Your task to perform on an android device: Open notification settings Image 0: 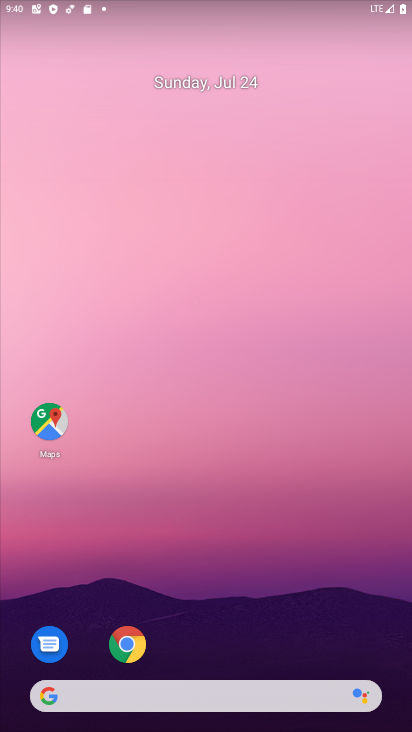
Step 0: drag from (202, 648) to (237, 252)
Your task to perform on an android device: Open notification settings Image 1: 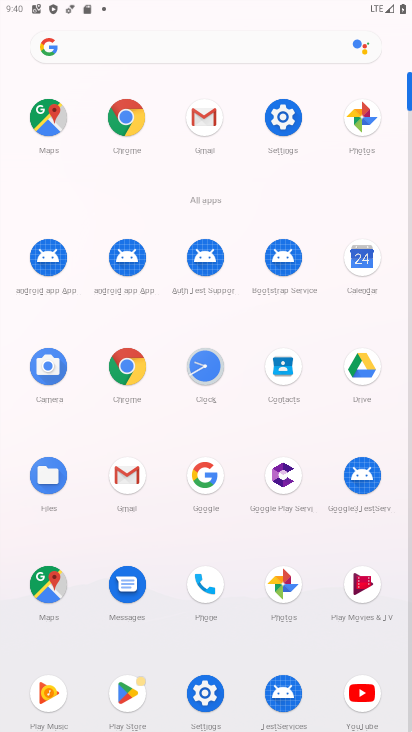
Step 1: click (279, 104)
Your task to perform on an android device: Open notification settings Image 2: 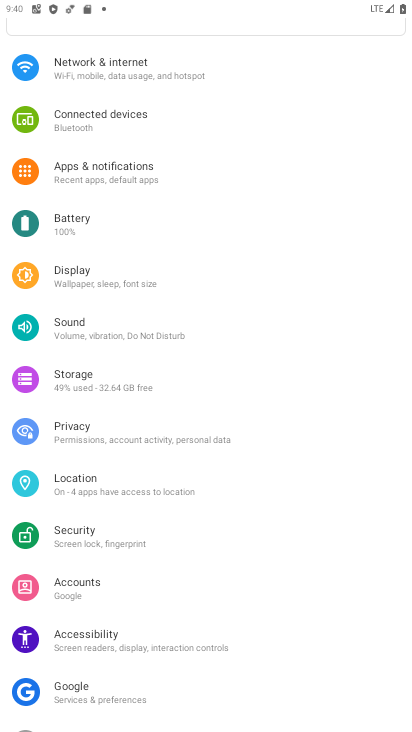
Step 2: click (89, 173)
Your task to perform on an android device: Open notification settings Image 3: 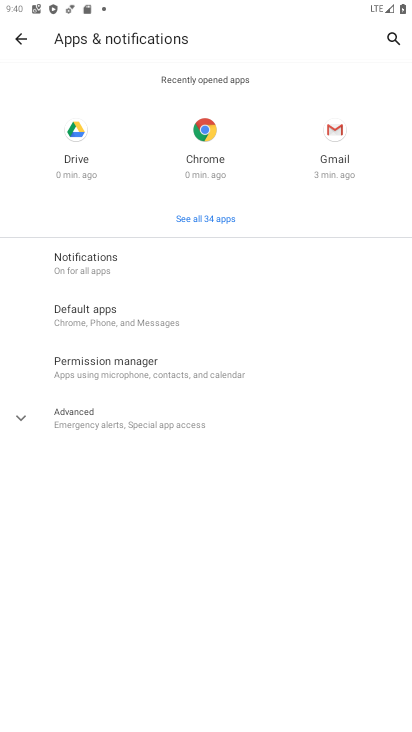
Step 3: click (109, 409)
Your task to perform on an android device: Open notification settings Image 4: 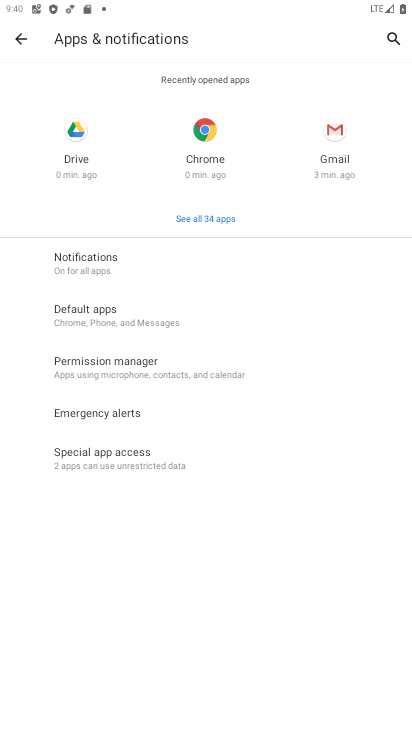
Step 4: task complete